Your task to perform on an android device: Go to Reddit.com Image 0: 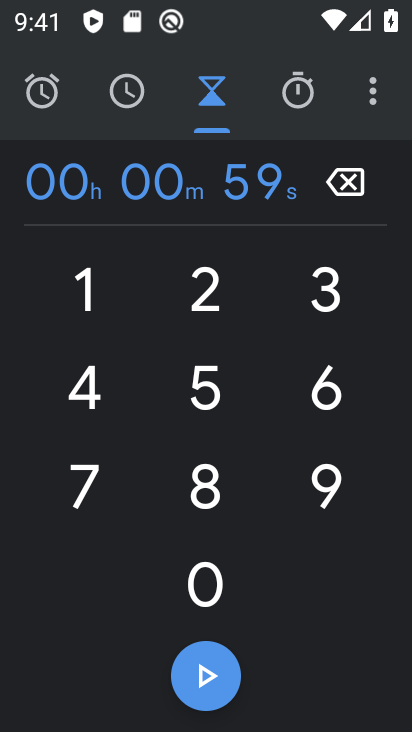
Step 0: press home button
Your task to perform on an android device: Go to Reddit.com Image 1: 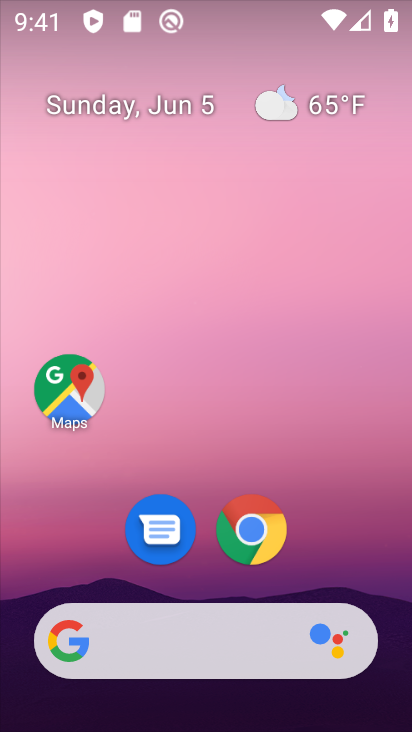
Step 1: click (253, 633)
Your task to perform on an android device: Go to Reddit.com Image 2: 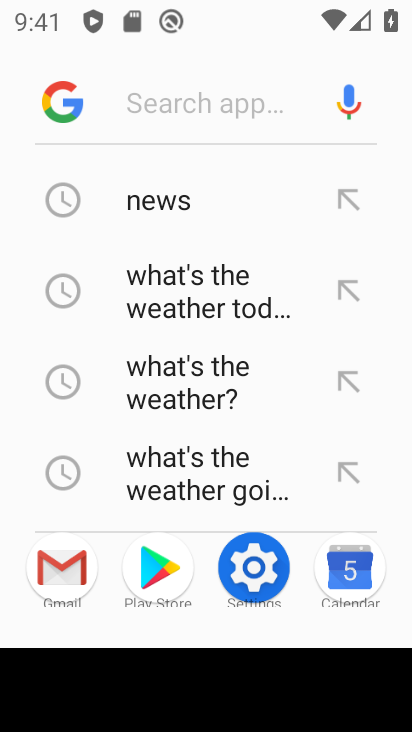
Step 2: type "reddit,com"
Your task to perform on an android device: Go to Reddit.com Image 3: 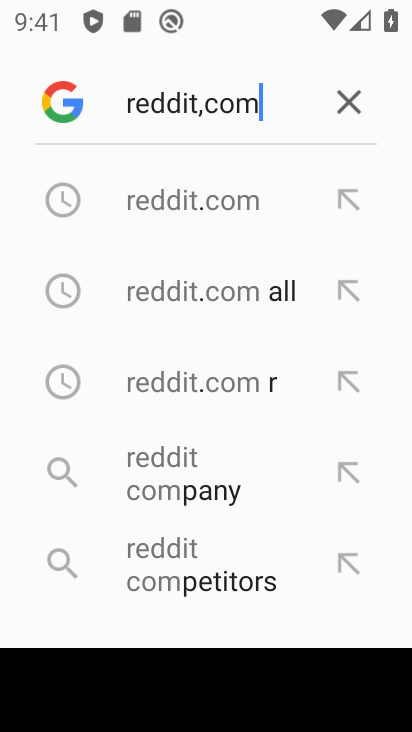
Step 3: click (251, 207)
Your task to perform on an android device: Go to Reddit.com Image 4: 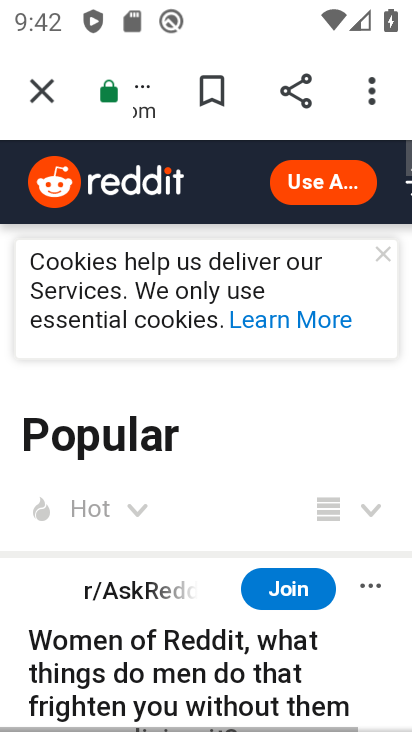
Step 4: task complete